Your task to perform on an android device: What's the weather? Image 0: 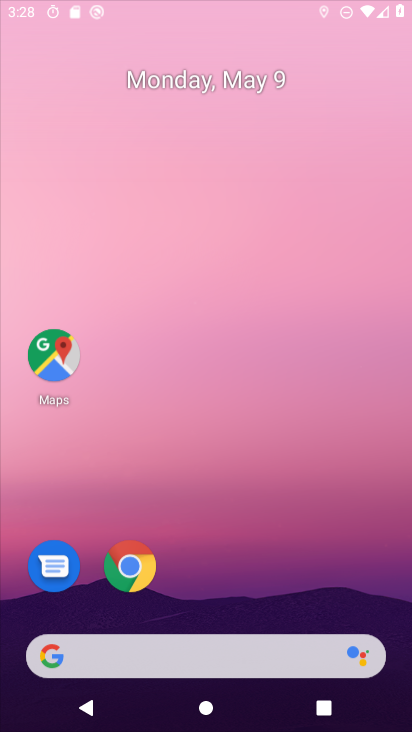
Step 0: click (283, 128)
Your task to perform on an android device: What's the weather? Image 1: 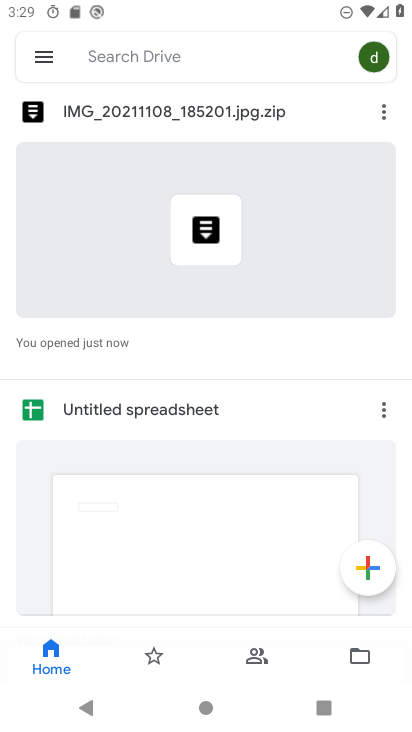
Step 1: press home button
Your task to perform on an android device: What's the weather? Image 2: 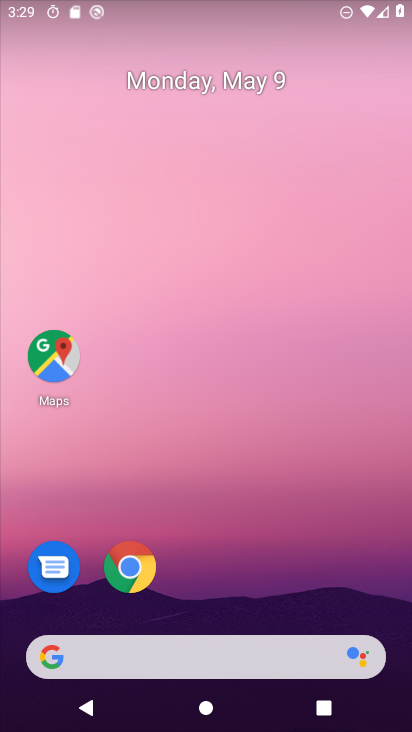
Step 2: drag from (243, 578) to (226, 138)
Your task to perform on an android device: What's the weather? Image 3: 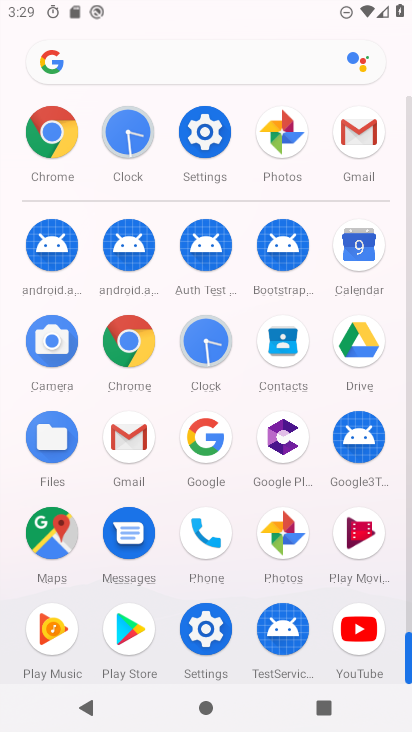
Step 3: click (203, 449)
Your task to perform on an android device: What's the weather? Image 4: 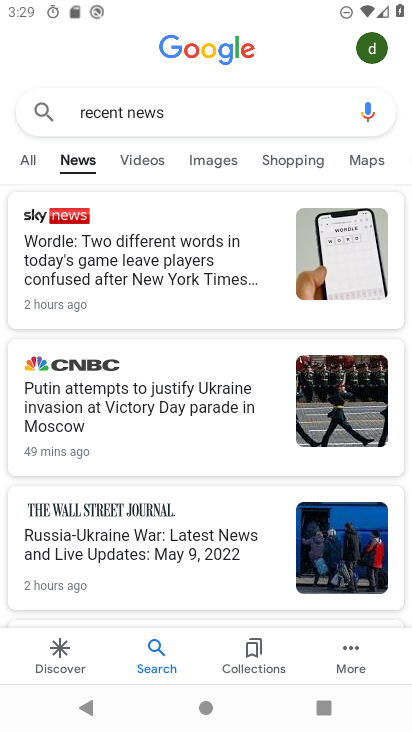
Step 4: click (187, 106)
Your task to perform on an android device: What's the weather? Image 5: 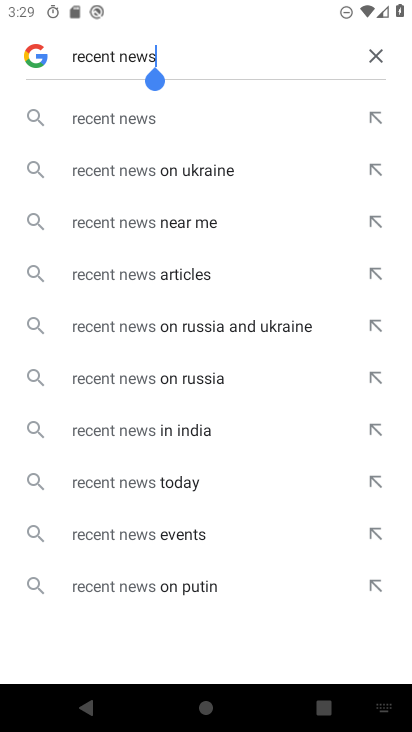
Step 5: click (371, 58)
Your task to perform on an android device: What's the weather? Image 6: 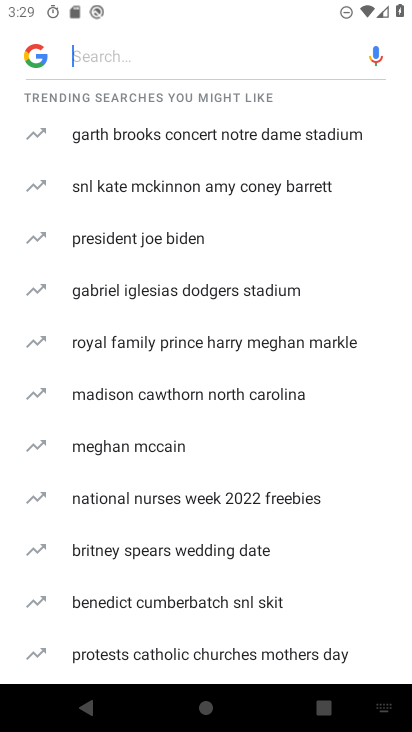
Step 6: type "weather"
Your task to perform on an android device: What's the weather? Image 7: 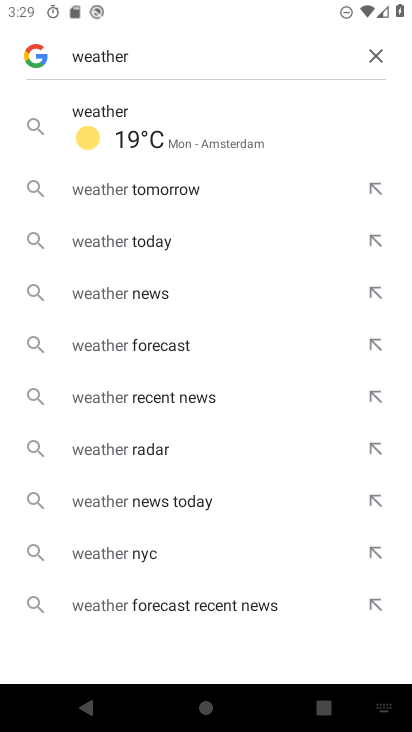
Step 7: click (178, 139)
Your task to perform on an android device: What's the weather? Image 8: 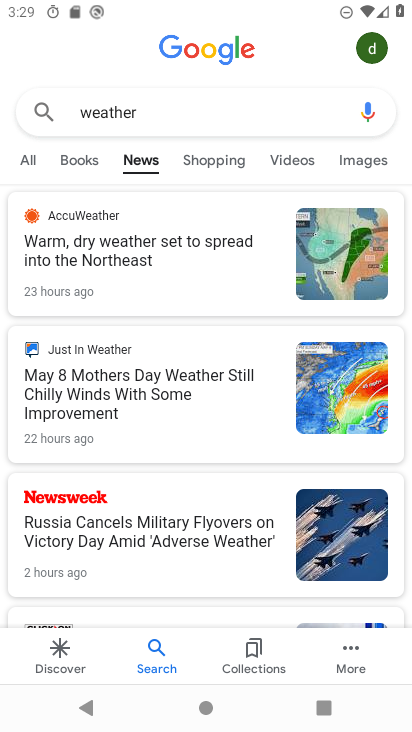
Step 8: click (36, 157)
Your task to perform on an android device: What's the weather? Image 9: 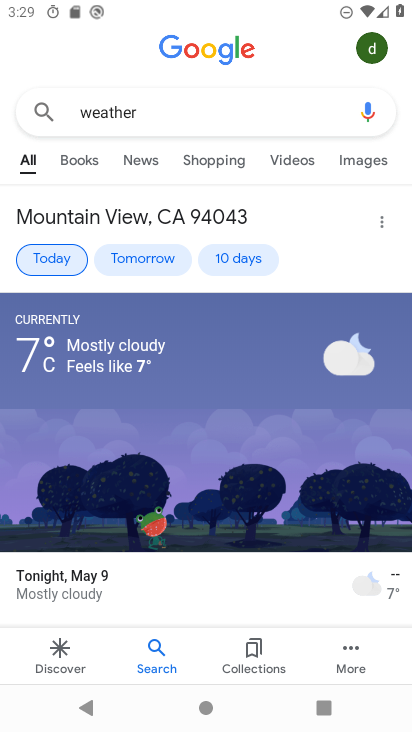
Step 9: task complete